Your task to perform on an android device: toggle javascript in the chrome app Image 0: 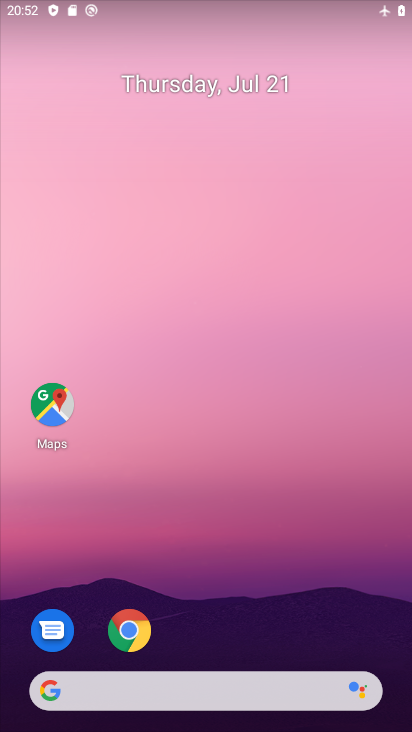
Step 0: click (129, 631)
Your task to perform on an android device: toggle javascript in the chrome app Image 1: 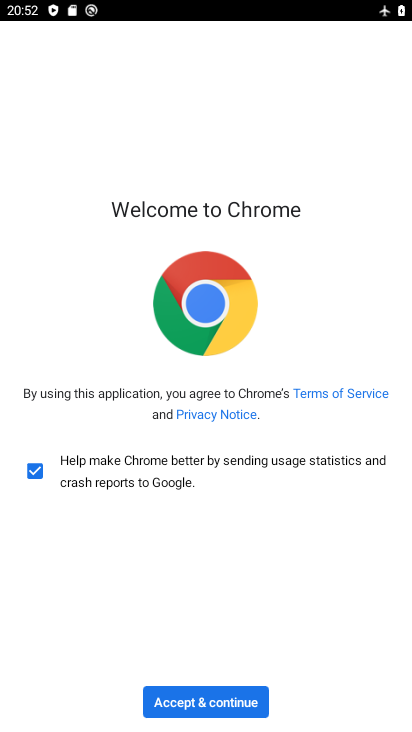
Step 1: click (202, 704)
Your task to perform on an android device: toggle javascript in the chrome app Image 2: 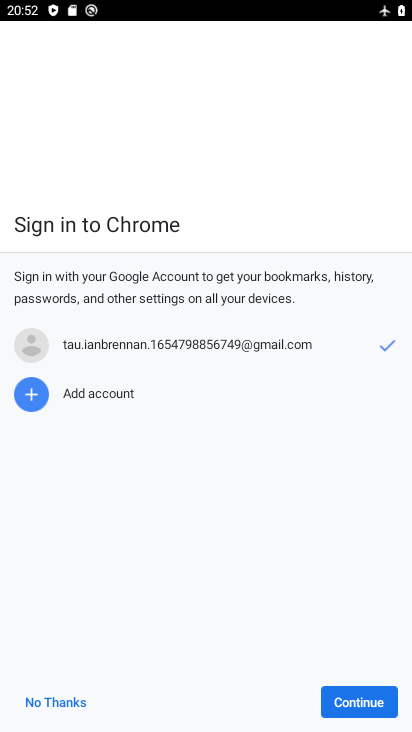
Step 2: click (376, 703)
Your task to perform on an android device: toggle javascript in the chrome app Image 3: 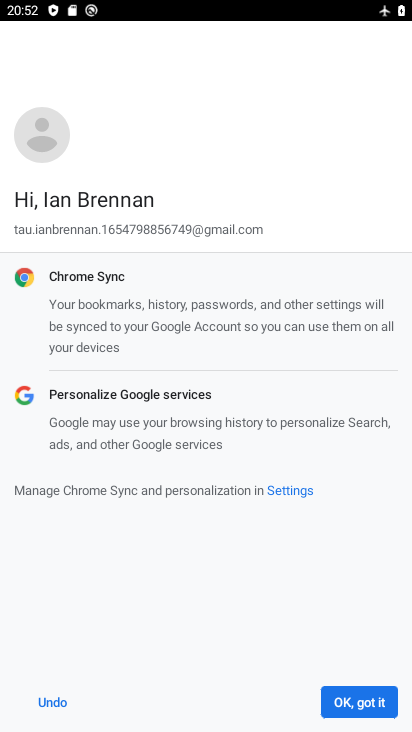
Step 3: click (376, 703)
Your task to perform on an android device: toggle javascript in the chrome app Image 4: 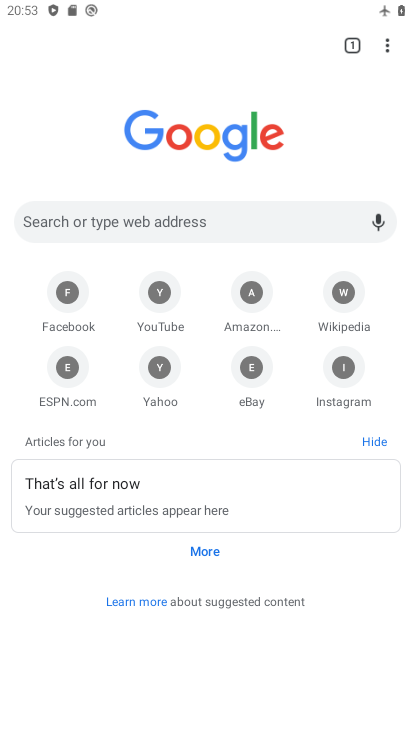
Step 4: click (391, 51)
Your task to perform on an android device: toggle javascript in the chrome app Image 5: 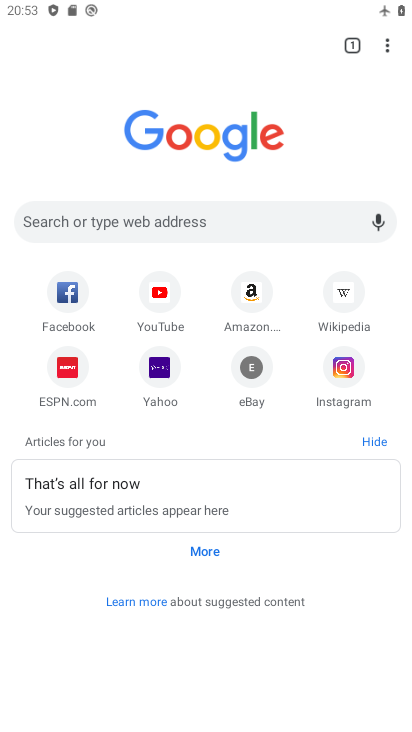
Step 5: click (383, 47)
Your task to perform on an android device: toggle javascript in the chrome app Image 6: 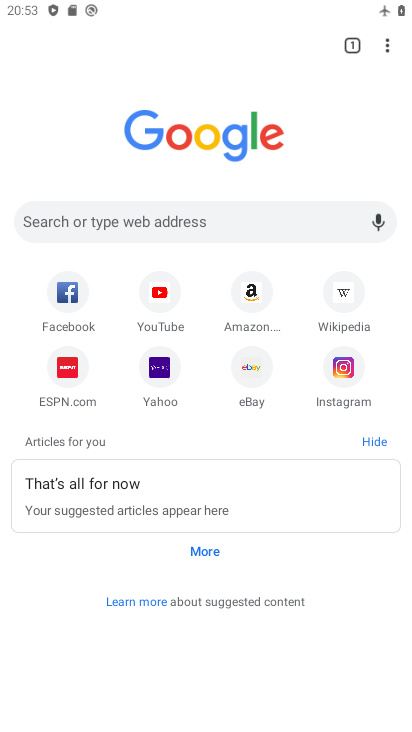
Step 6: click (383, 47)
Your task to perform on an android device: toggle javascript in the chrome app Image 7: 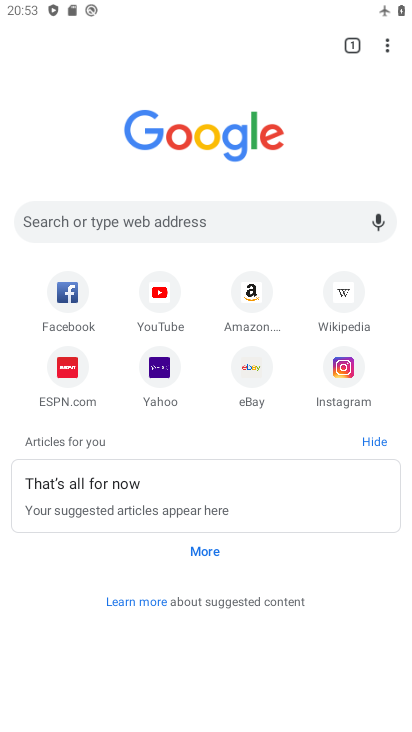
Step 7: click (383, 45)
Your task to perform on an android device: toggle javascript in the chrome app Image 8: 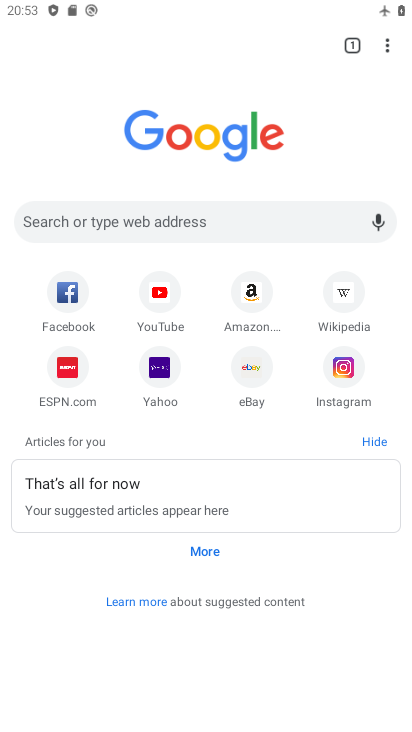
Step 8: click (383, 45)
Your task to perform on an android device: toggle javascript in the chrome app Image 9: 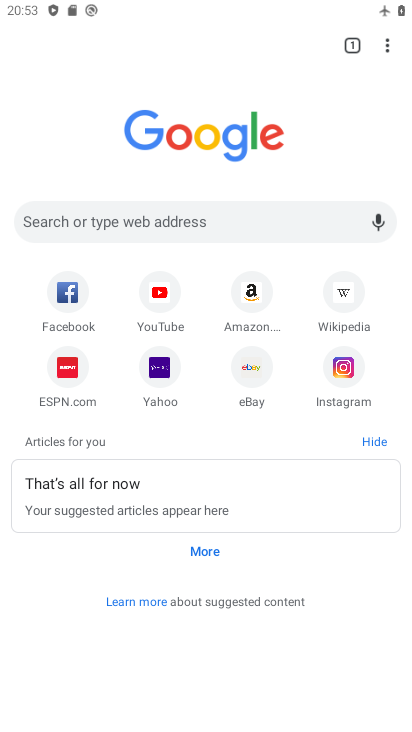
Step 9: click (383, 45)
Your task to perform on an android device: toggle javascript in the chrome app Image 10: 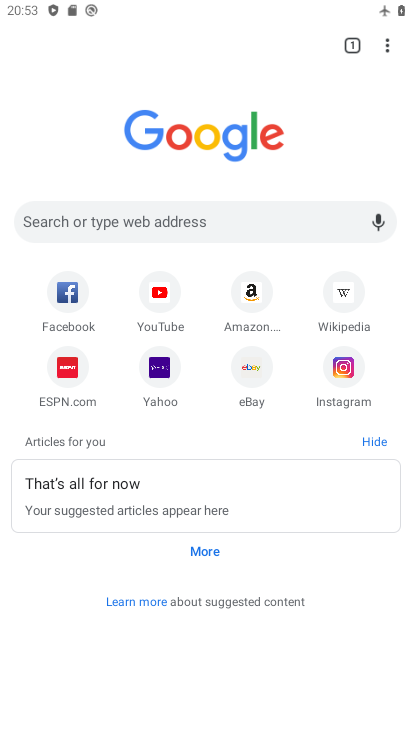
Step 10: click (387, 44)
Your task to perform on an android device: toggle javascript in the chrome app Image 11: 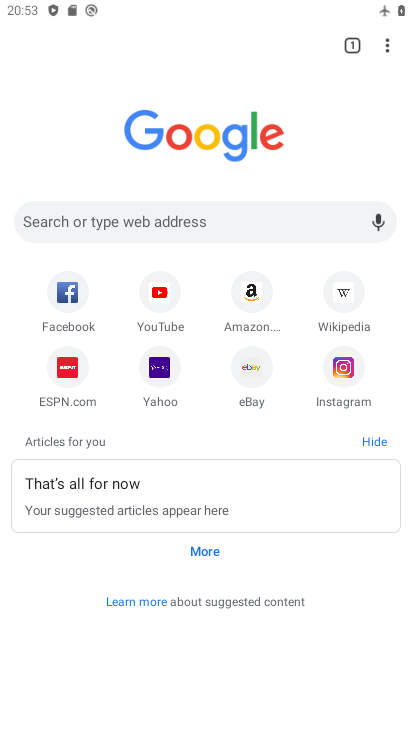
Step 11: click (386, 46)
Your task to perform on an android device: toggle javascript in the chrome app Image 12: 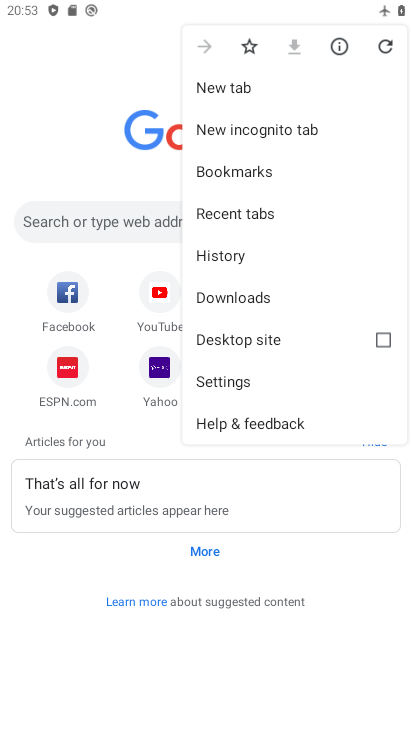
Step 12: click (222, 377)
Your task to perform on an android device: toggle javascript in the chrome app Image 13: 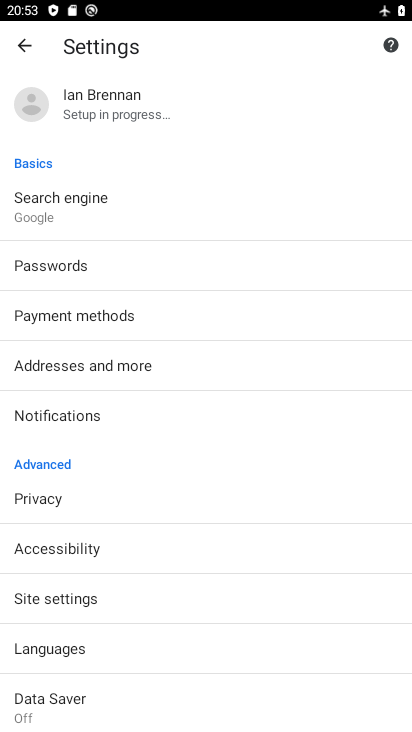
Step 13: click (66, 600)
Your task to perform on an android device: toggle javascript in the chrome app Image 14: 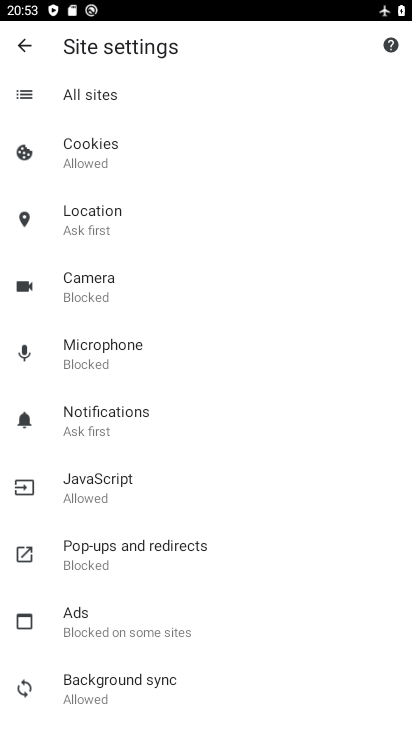
Step 14: click (99, 484)
Your task to perform on an android device: toggle javascript in the chrome app Image 15: 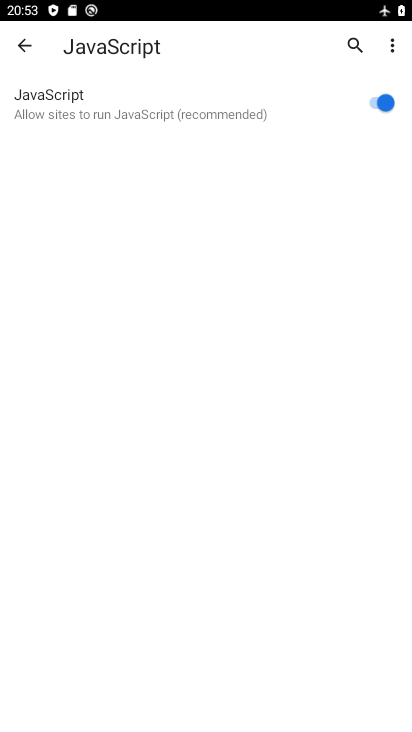
Step 15: click (371, 106)
Your task to perform on an android device: toggle javascript in the chrome app Image 16: 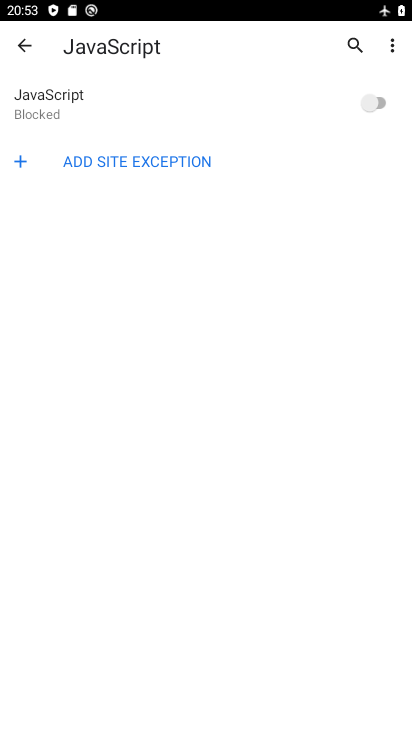
Step 16: task complete